Your task to perform on an android device: Go to Wikipedia Image 0: 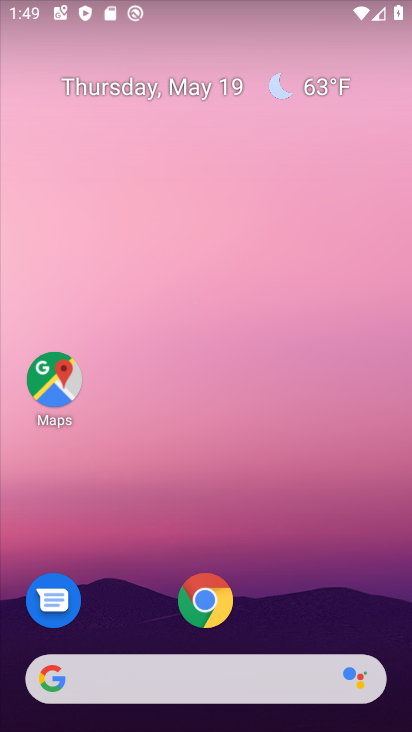
Step 0: click (213, 600)
Your task to perform on an android device: Go to Wikipedia Image 1: 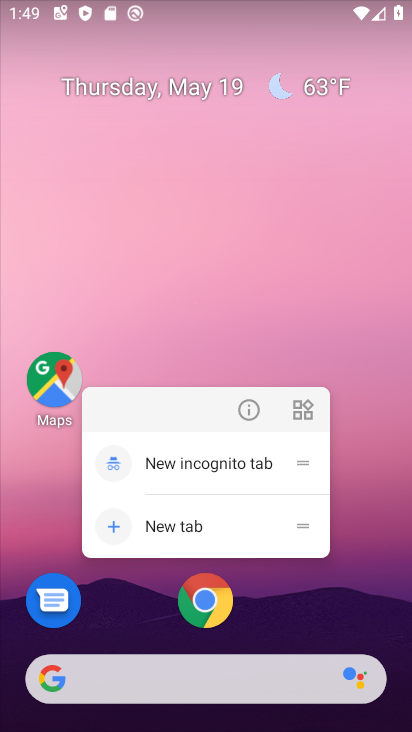
Step 1: click (217, 594)
Your task to perform on an android device: Go to Wikipedia Image 2: 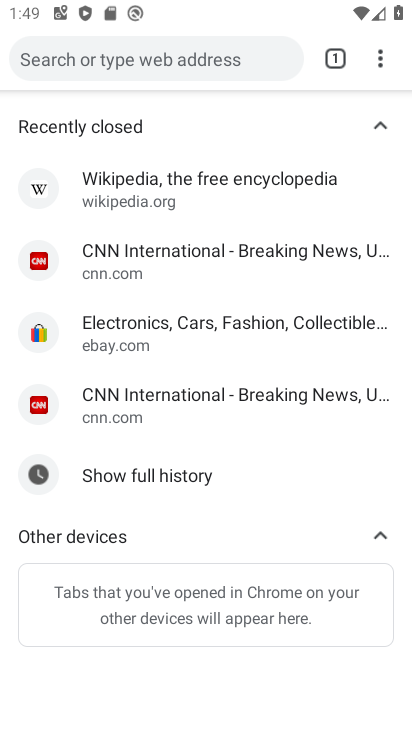
Step 2: click (329, 65)
Your task to perform on an android device: Go to Wikipedia Image 3: 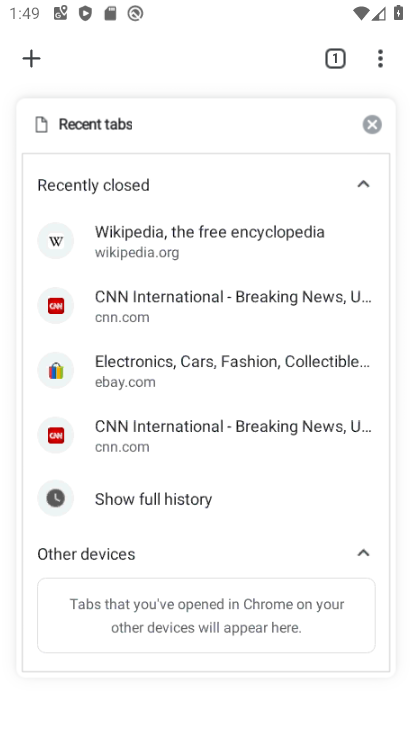
Step 3: click (367, 126)
Your task to perform on an android device: Go to Wikipedia Image 4: 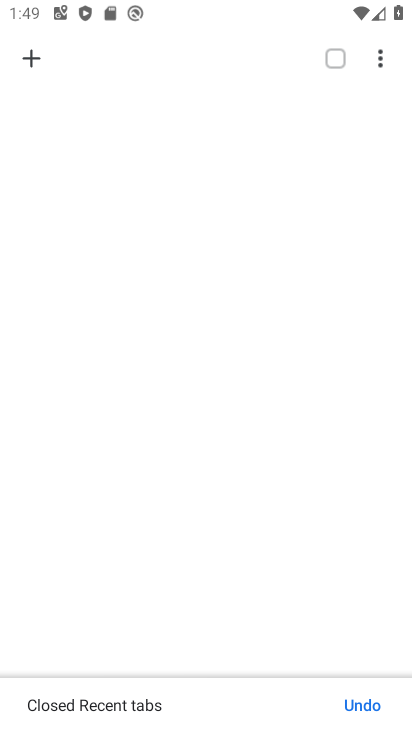
Step 4: click (39, 58)
Your task to perform on an android device: Go to Wikipedia Image 5: 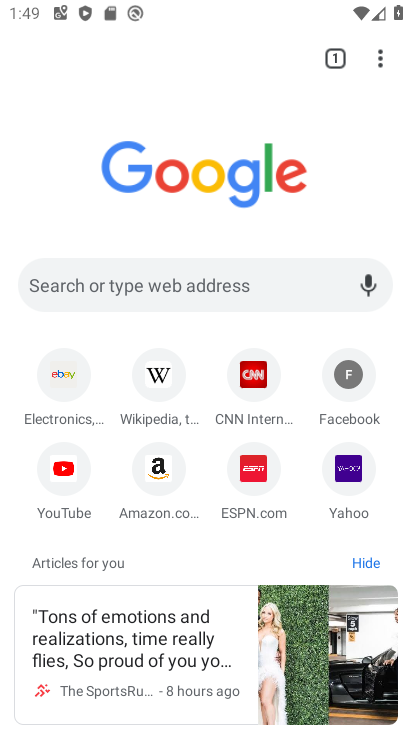
Step 5: click (160, 372)
Your task to perform on an android device: Go to Wikipedia Image 6: 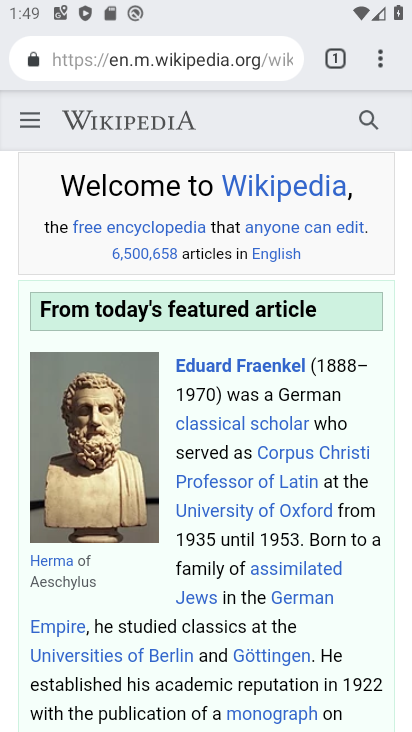
Step 6: task complete